Your task to perform on an android device: see sites visited before in the chrome app Image 0: 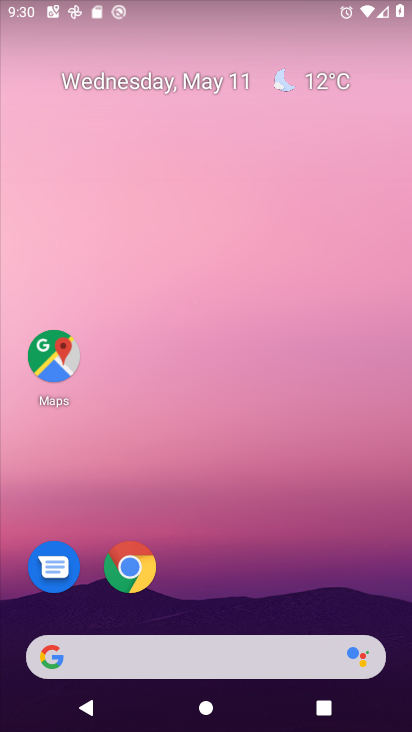
Step 0: click (133, 568)
Your task to perform on an android device: see sites visited before in the chrome app Image 1: 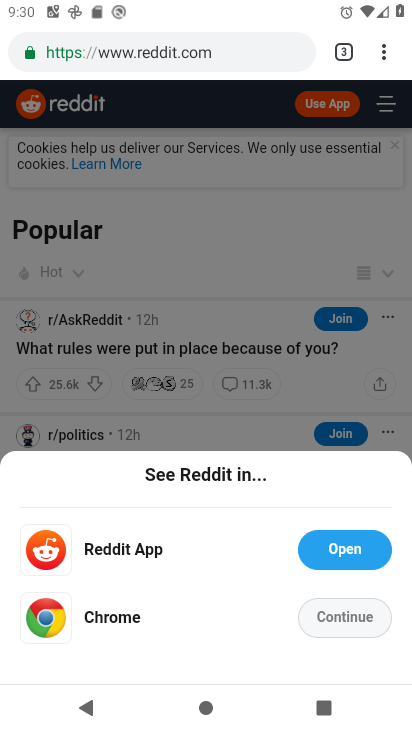
Step 1: click (384, 46)
Your task to perform on an android device: see sites visited before in the chrome app Image 2: 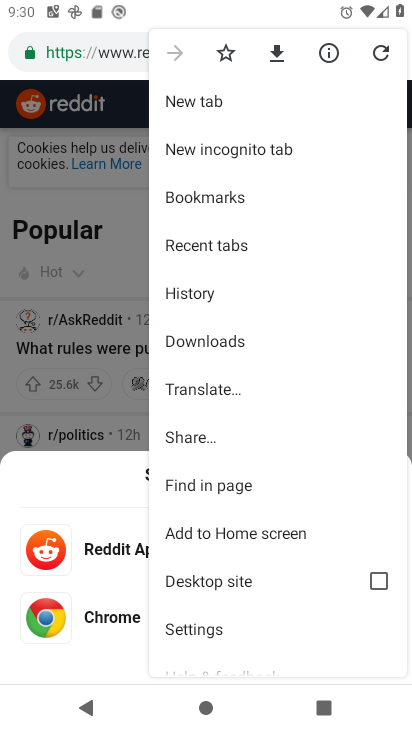
Step 2: click (211, 296)
Your task to perform on an android device: see sites visited before in the chrome app Image 3: 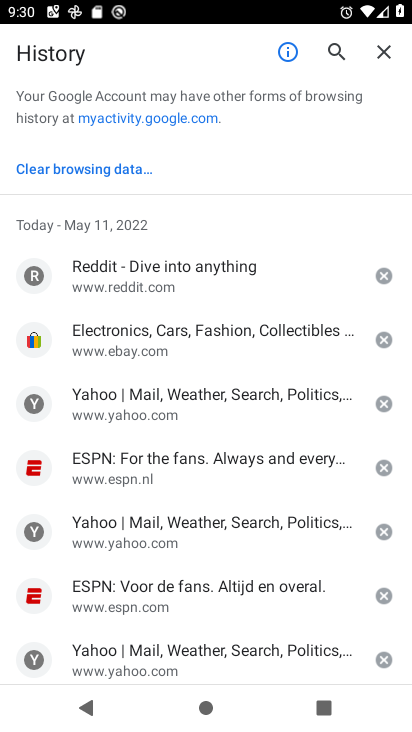
Step 3: task complete